Your task to perform on an android device: change alarm snooze length Image 0: 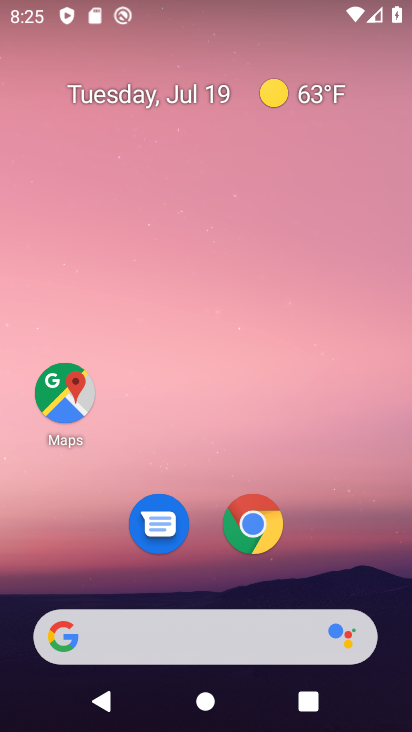
Step 0: press home button
Your task to perform on an android device: change alarm snooze length Image 1: 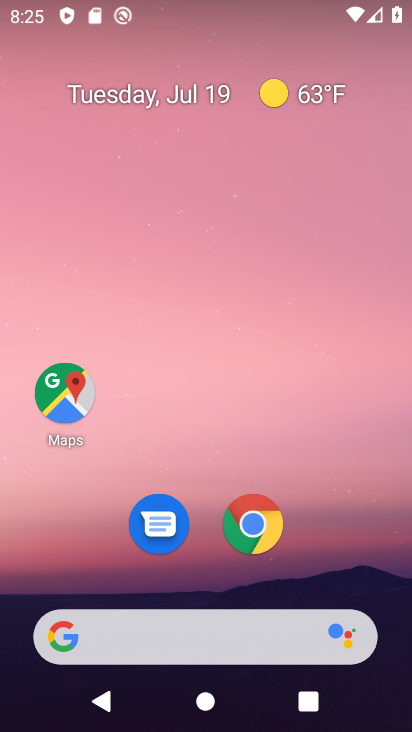
Step 1: drag from (214, 623) to (314, 85)
Your task to perform on an android device: change alarm snooze length Image 2: 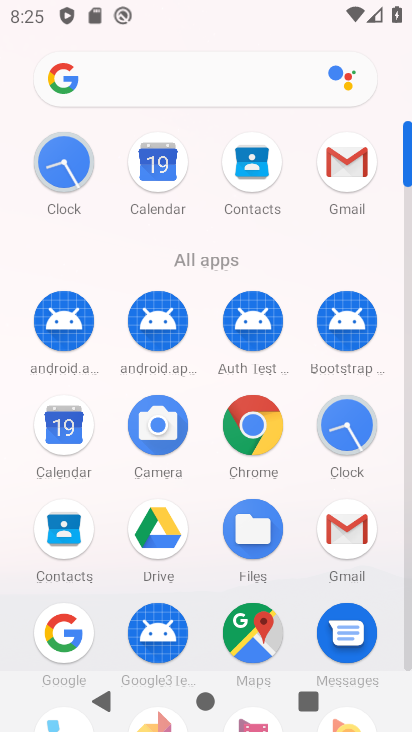
Step 2: click (352, 426)
Your task to perform on an android device: change alarm snooze length Image 3: 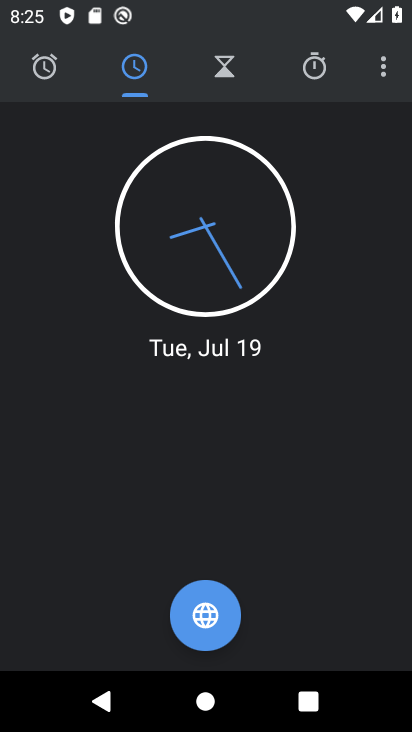
Step 3: click (384, 66)
Your task to perform on an android device: change alarm snooze length Image 4: 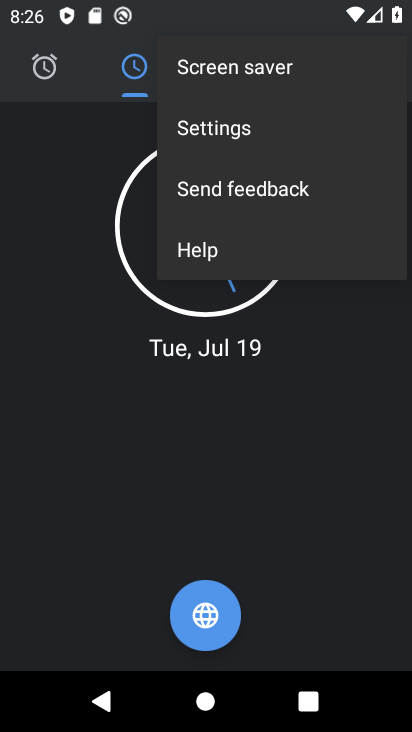
Step 4: click (244, 131)
Your task to perform on an android device: change alarm snooze length Image 5: 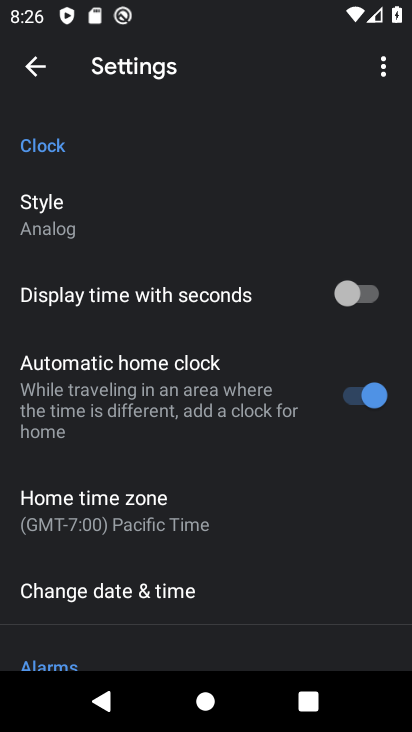
Step 5: drag from (241, 579) to (320, 28)
Your task to perform on an android device: change alarm snooze length Image 6: 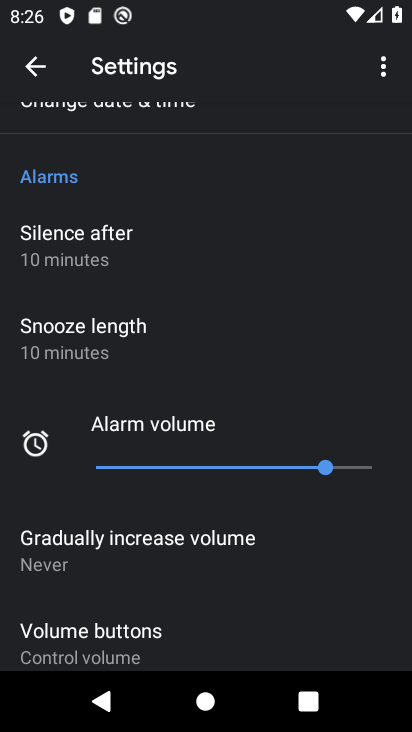
Step 6: drag from (239, 607) to (327, 172)
Your task to perform on an android device: change alarm snooze length Image 7: 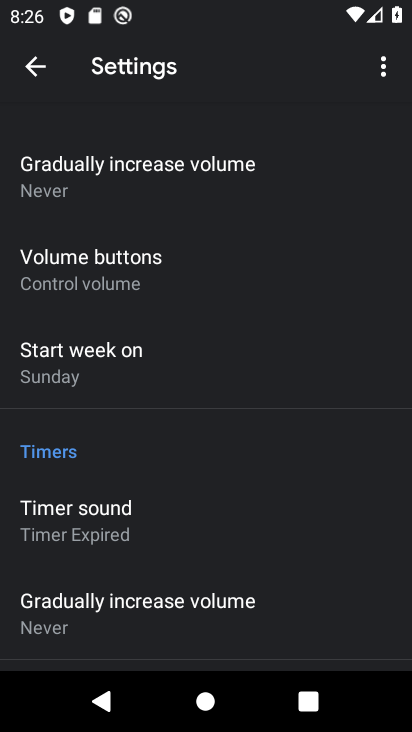
Step 7: drag from (182, 471) to (276, 132)
Your task to perform on an android device: change alarm snooze length Image 8: 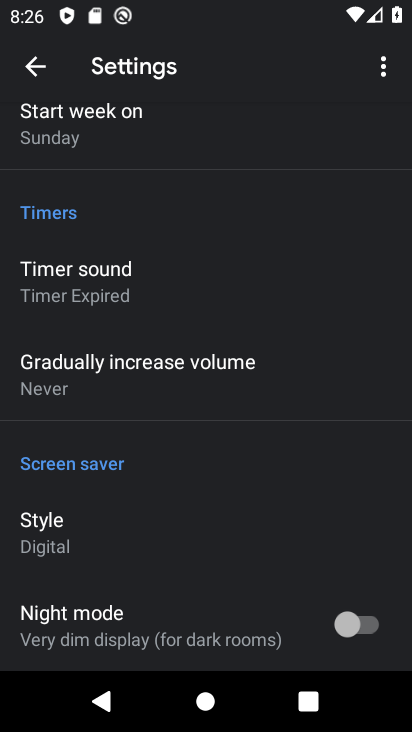
Step 8: drag from (184, 509) to (270, 211)
Your task to perform on an android device: change alarm snooze length Image 9: 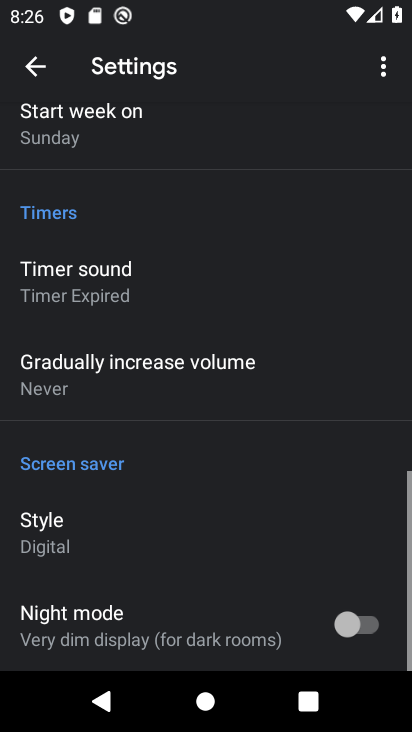
Step 9: drag from (285, 198) to (191, 532)
Your task to perform on an android device: change alarm snooze length Image 10: 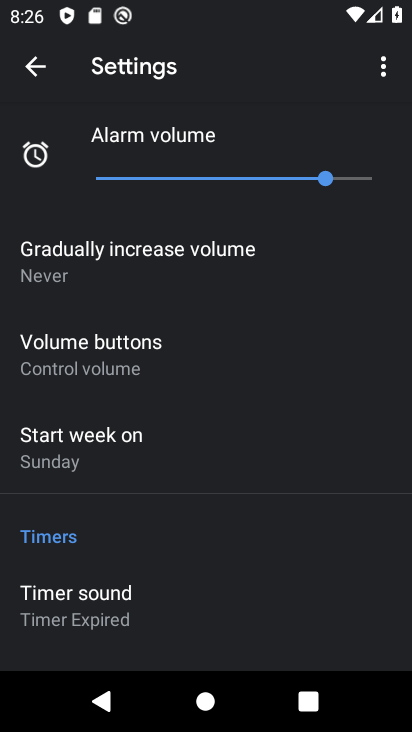
Step 10: drag from (268, 344) to (202, 541)
Your task to perform on an android device: change alarm snooze length Image 11: 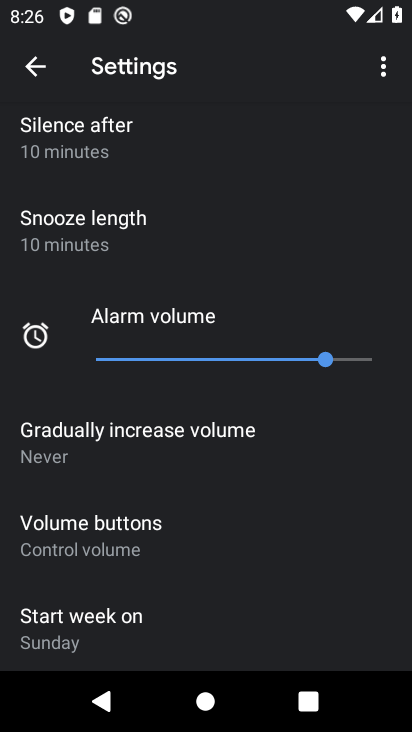
Step 11: click (72, 238)
Your task to perform on an android device: change alarm snooze length Image 12: 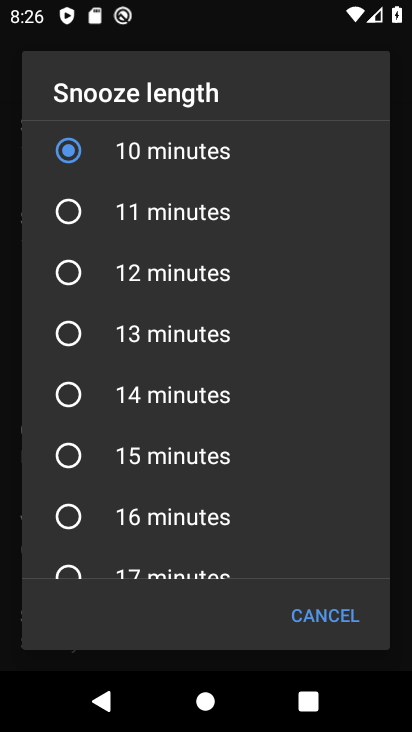
Step 12: click (63, 466)
Your task to perform on an android device: change alarm snooze length Image 13: 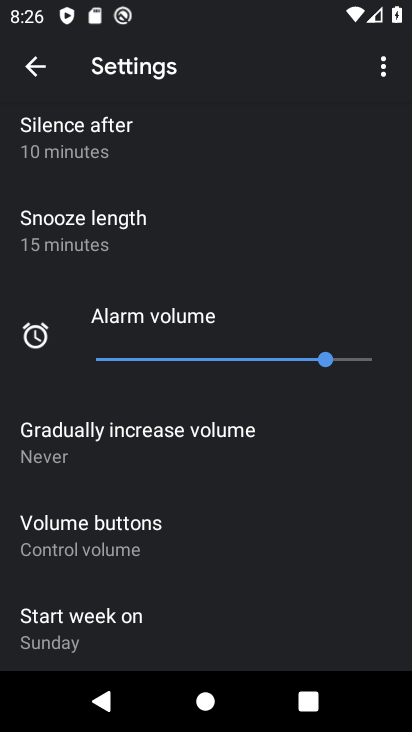
Step 13: task complete